Your task to perform on an android device: open app "Microsoft Authenticator" Image 0: 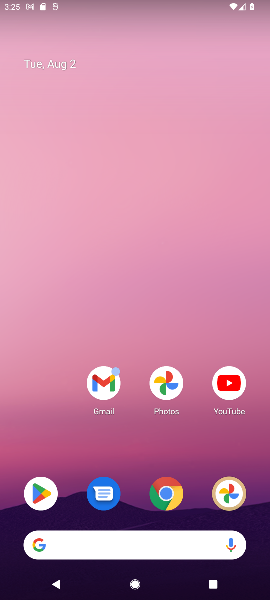
Step 0: click (35, 497)
Your task to perform on an android device: open app "Microsoft Authenticator" Image 1: 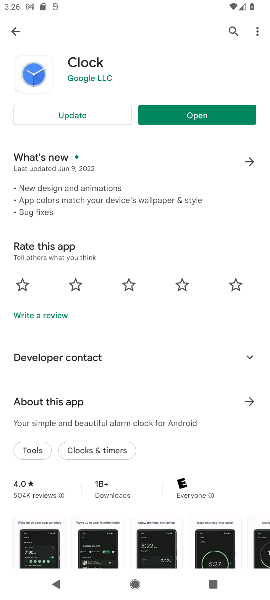
Step 1: click (14, 23)
Your task to perform on an android device: open app "Microsoft Authenticator" Image 2: 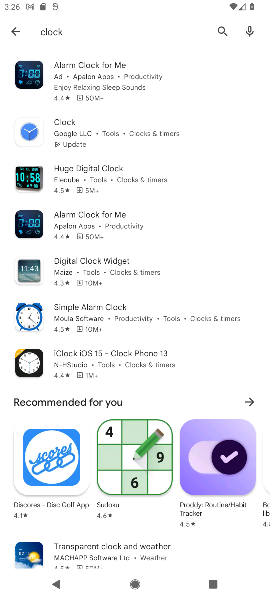
Step 2: click (15, 36)
Your task to perform on an android device: open app "Microsoft Authenticator" Image 3: 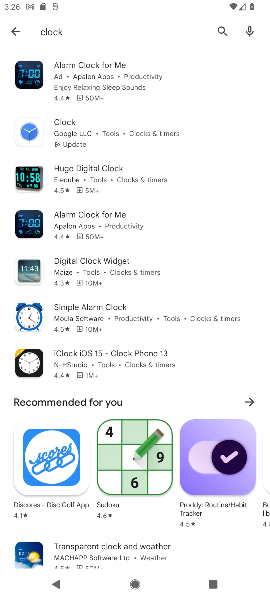
Step 3: click (18, 30)
Your task to perform on an android device: open app "Microsoft Authenticator" Image 4: 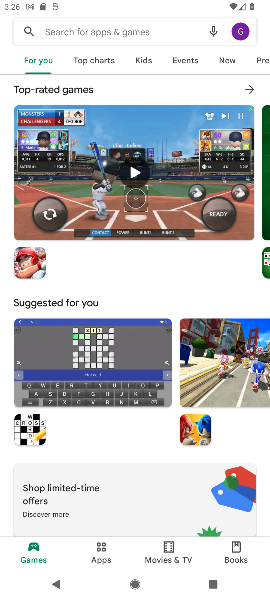
Step 4: click (67, 33)
Your task to perform on an android device: open app "Microsoft Authenticator" Image 5: 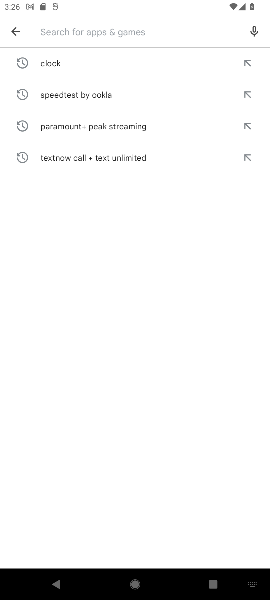
Step 5: type "microsoft authenticator"
Your task to perform on an android device: open app "Microsoft Authenticator" Image 6: 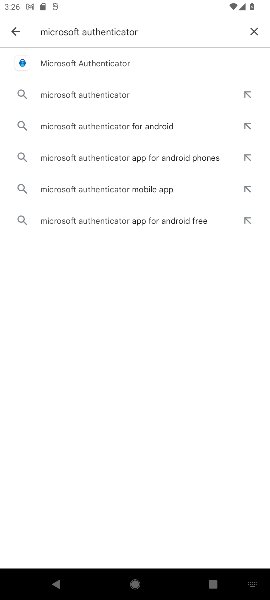
Step 6: click (90, 62)
Your task to perform on an android device: open app "Microsoft Authenticator" Image 7: 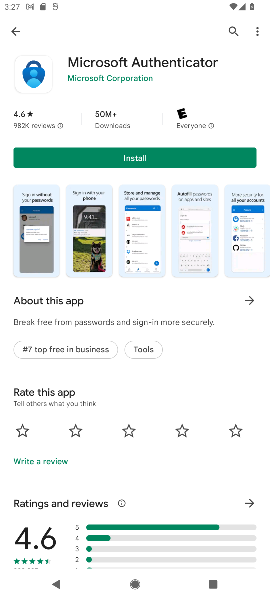
Step 7: task complete